Your task to perform on an android device: Search for Italian restaurants on Maps Image 0: 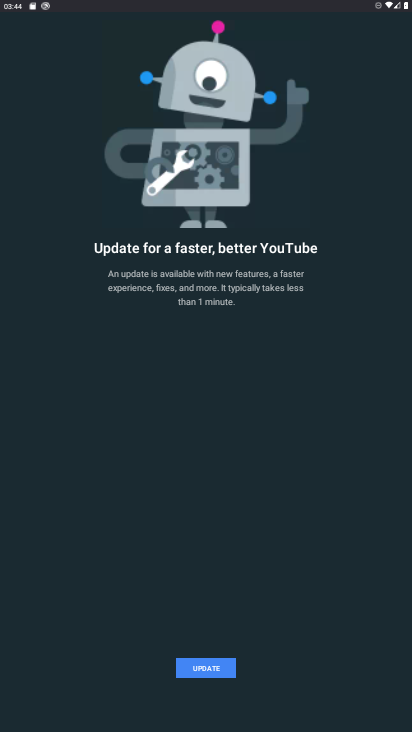
Step 0: press home button
Your task to perform on an android device: Search for Italian restaurants on Maps Image 1: 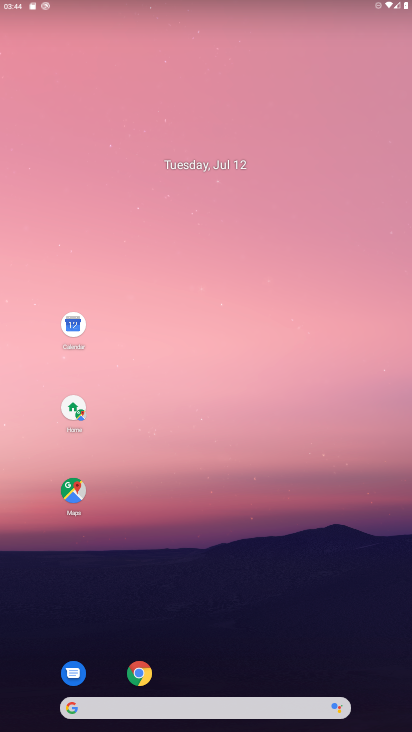
Step 1: drag from (292, 666) to (312, 321)
Your task to perform on an android device: Search for Italian restaurants on Maps Image 2: 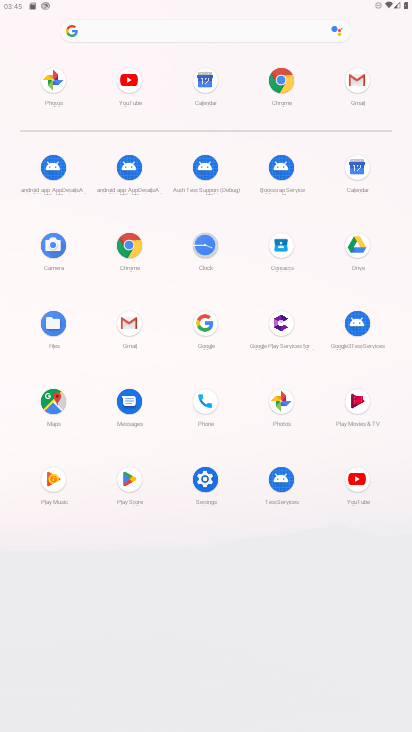
Step 2: click (49, 403)
Your task to perform on an android device: Search for Italian restaurants on Maps Image 3: 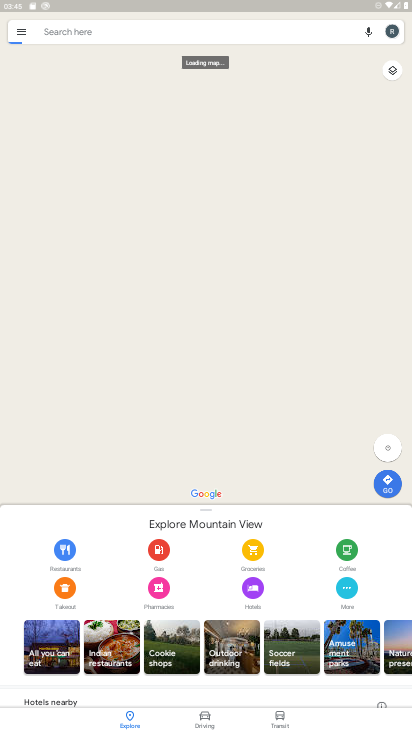
Step 3: drag from (223, 715) to (383, 596)
Your task to perform on an android device: Search for Italian restaurants on Maps Image 4: 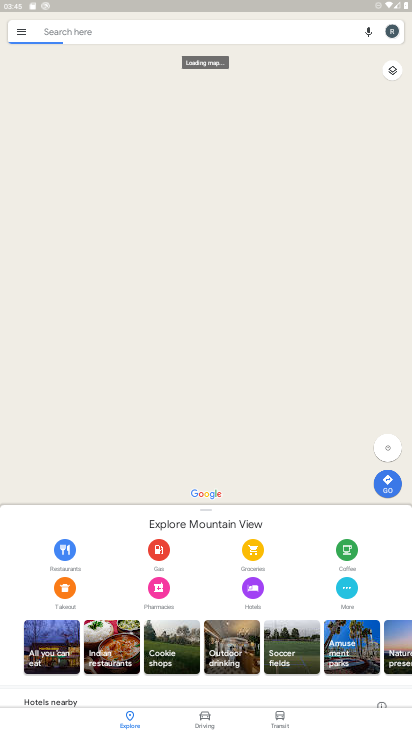
Step 4: click (162, 29)
Your task to perform on an android device: Search for Italian restaurants on Maps Image 5: 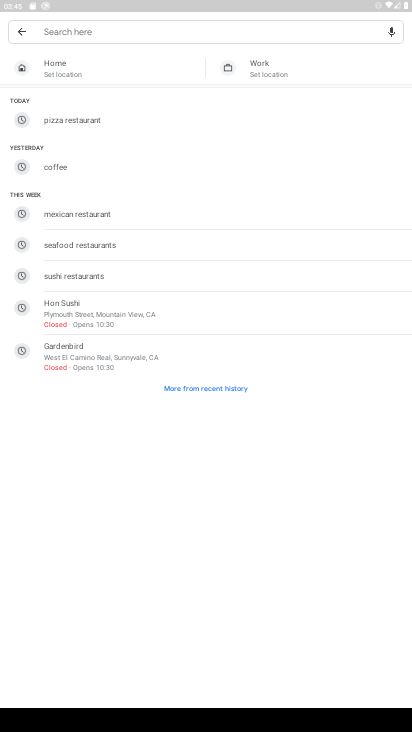
Step 5: type " Italian restaurants  "
Your task to perform on an android device: Search for Italian restaurants on Maps Image 6: 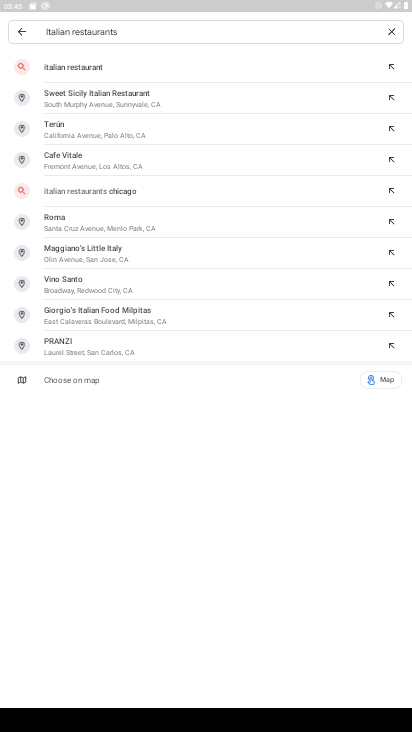
Step 6: click (86, 65)
Your task to perform on an android device: Search for Italian restaurants on Maps Image 7: 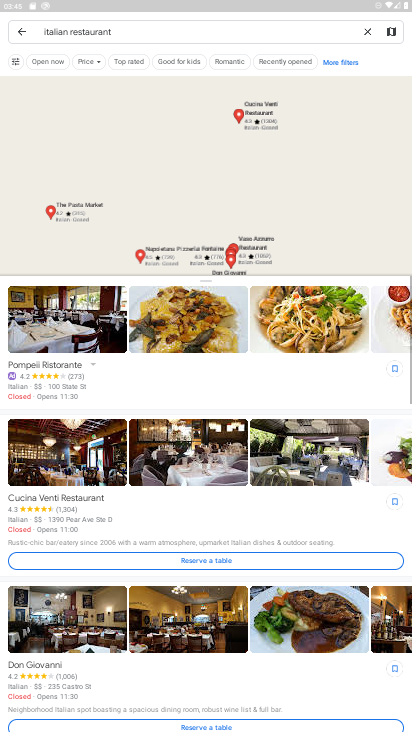
Step 7: task complete